Your task to perform on an android device: turn on location history Image 0: 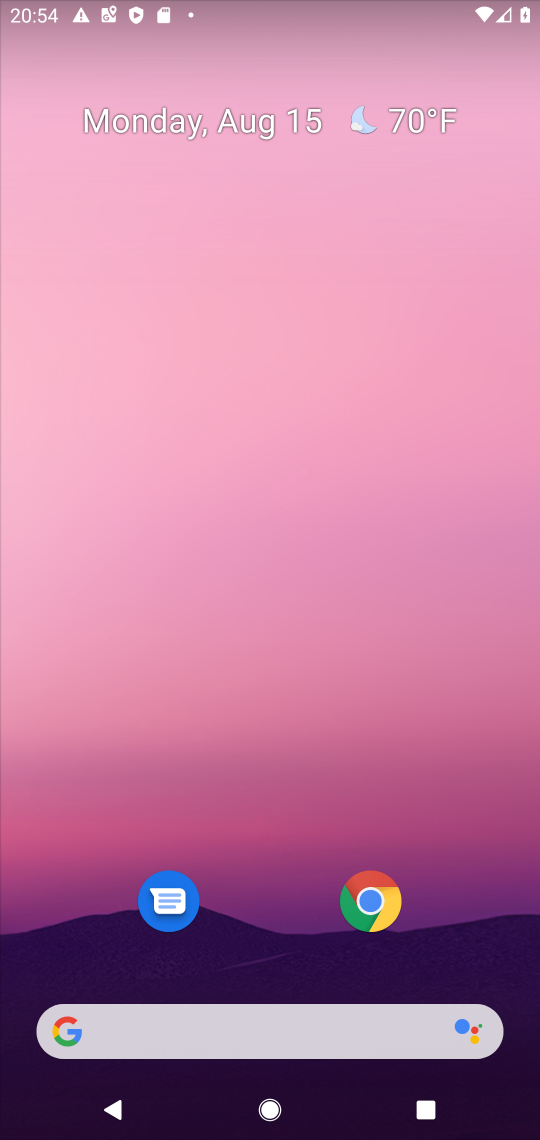
Step 0: drag from (265, 983) to (242, 33)
Your task to perform on an android device: turn on location history Image 1: 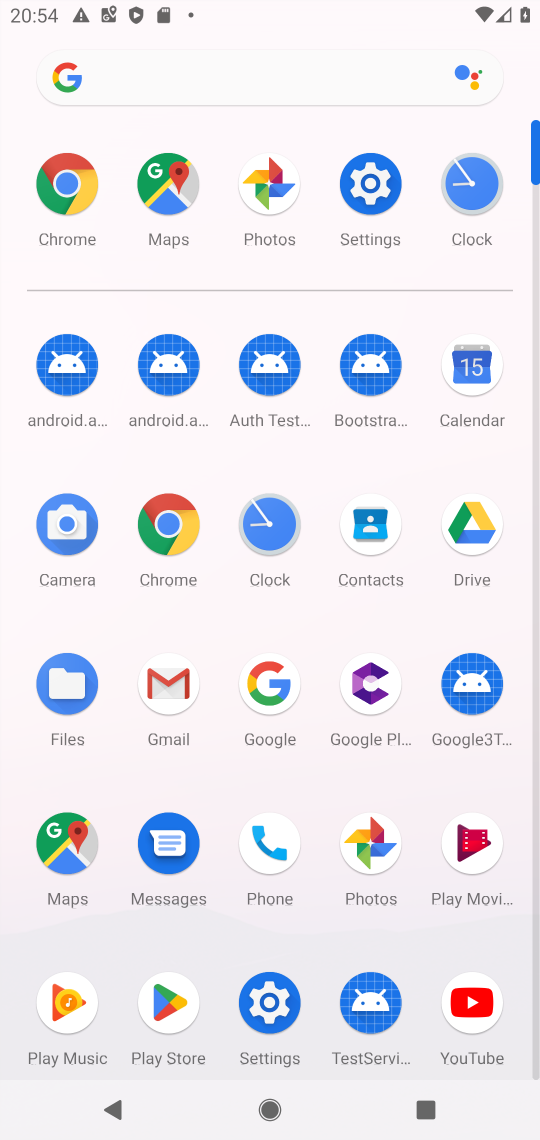
Step 1: click (280, 992)
Your task to perform on an android device: turn on location history Image 2: 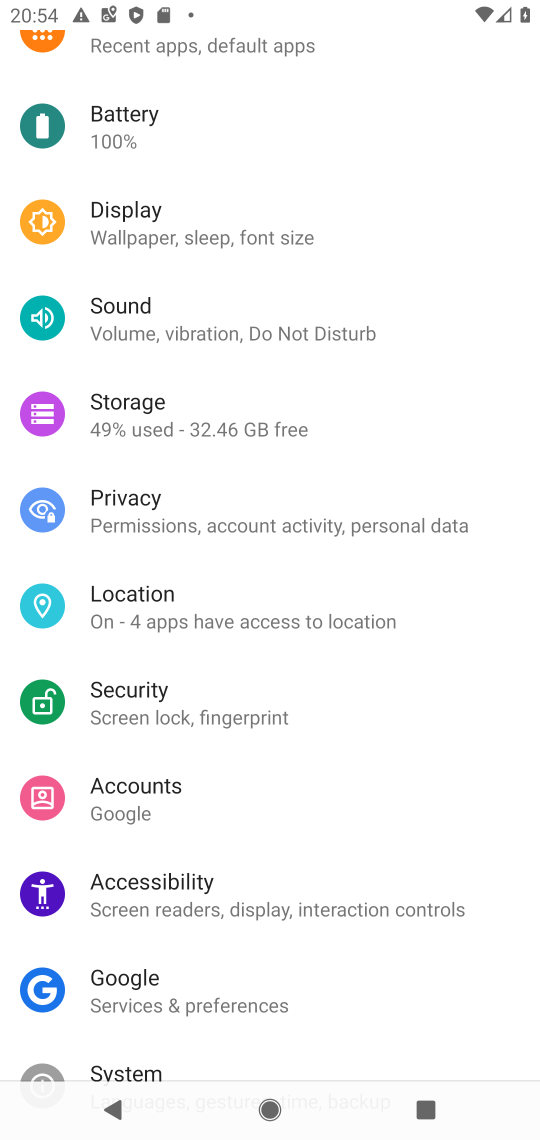
Step 2: click (169, 612)
Your task to perform on an android device: turn on location history Image 3: 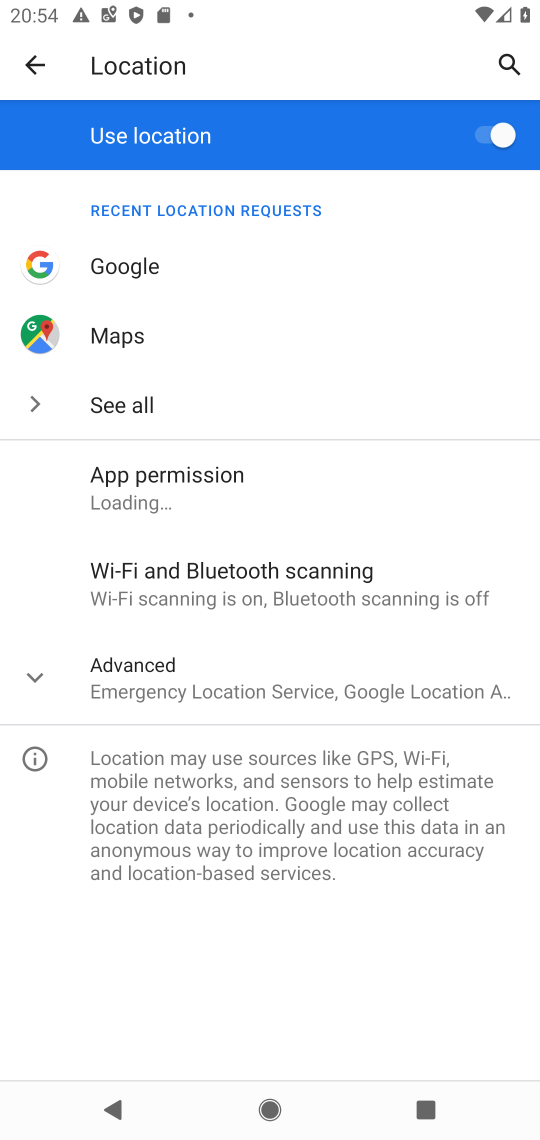
Step 3: click (172, 689)
Your task to perform on an android device: turn on location history Image 4: 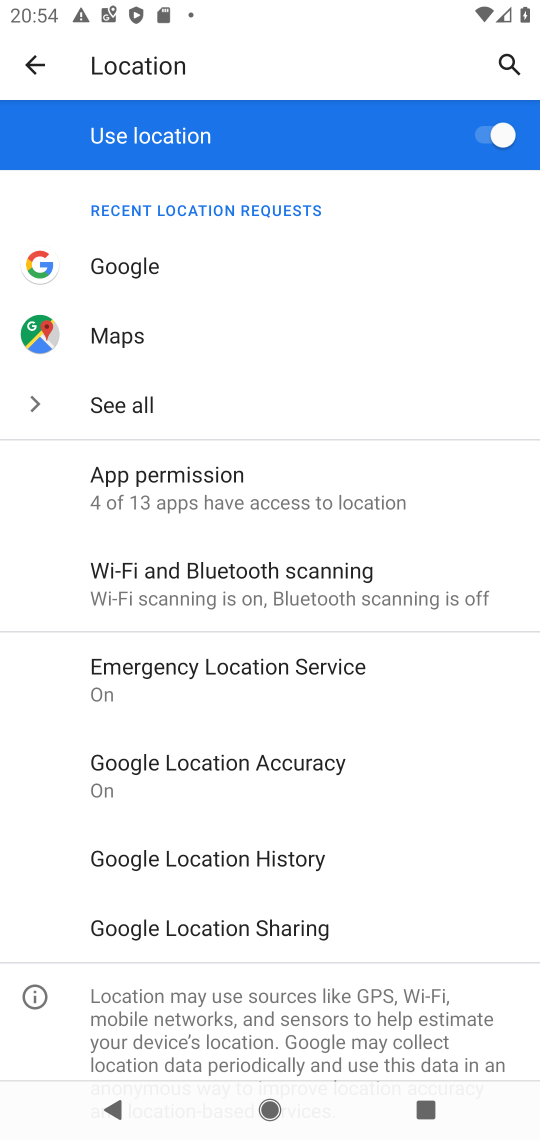
Step 4: click (222, 857)
Your task to perform on an android device: turn on location history Image 5: 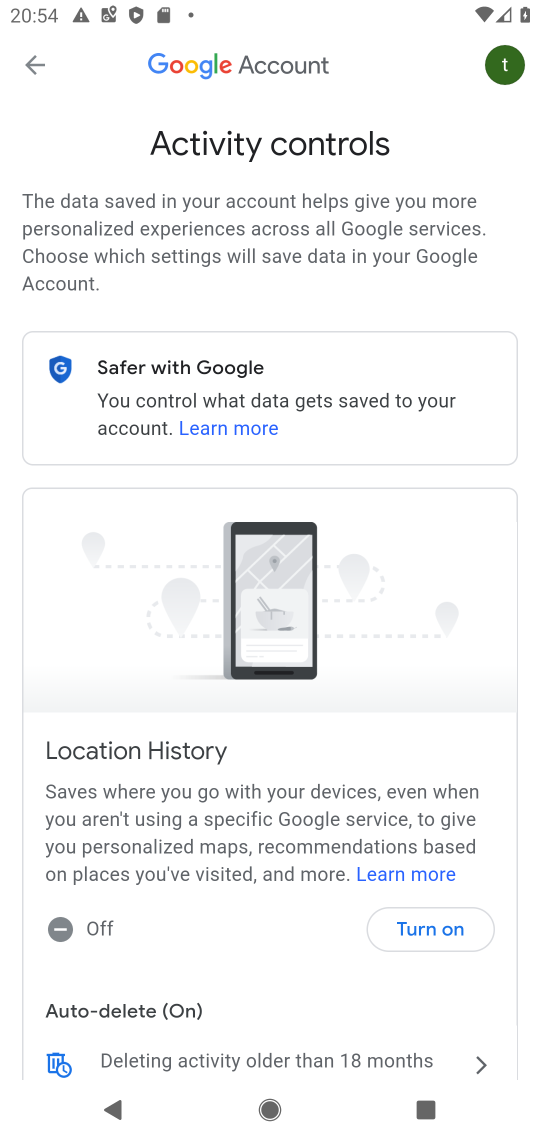
Step 5: click (418, 920)
Your task to perform on an android device: turn on location history Image 6: 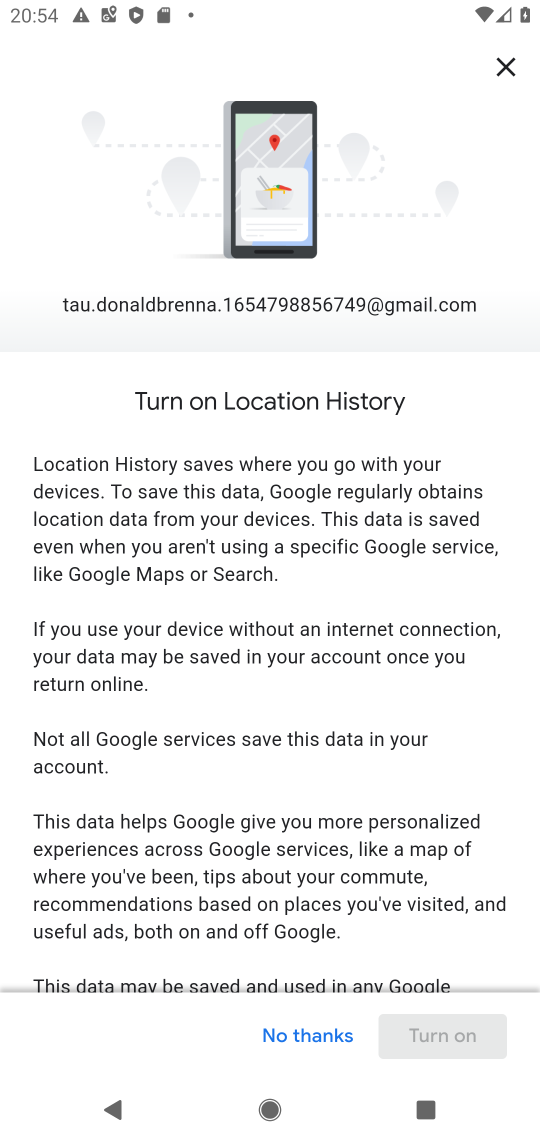
Step 6: drag from (299, 811) to (331, 284)
Your task to perform on an android device: turn on location history Image 7: 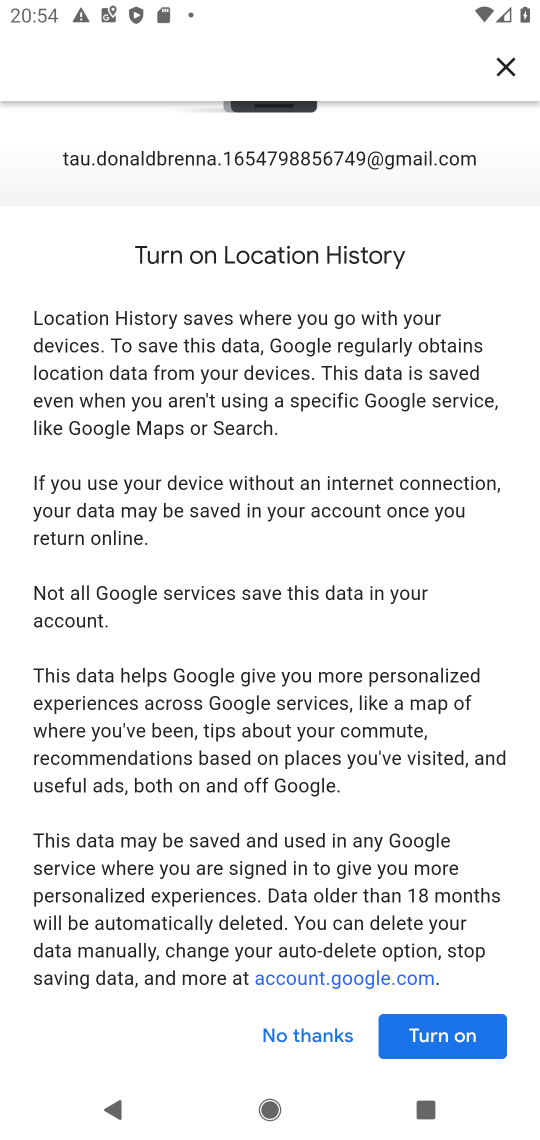
Step 7: click (438, 1032)
Your task to perform on an android device: turn on location history Image 8: 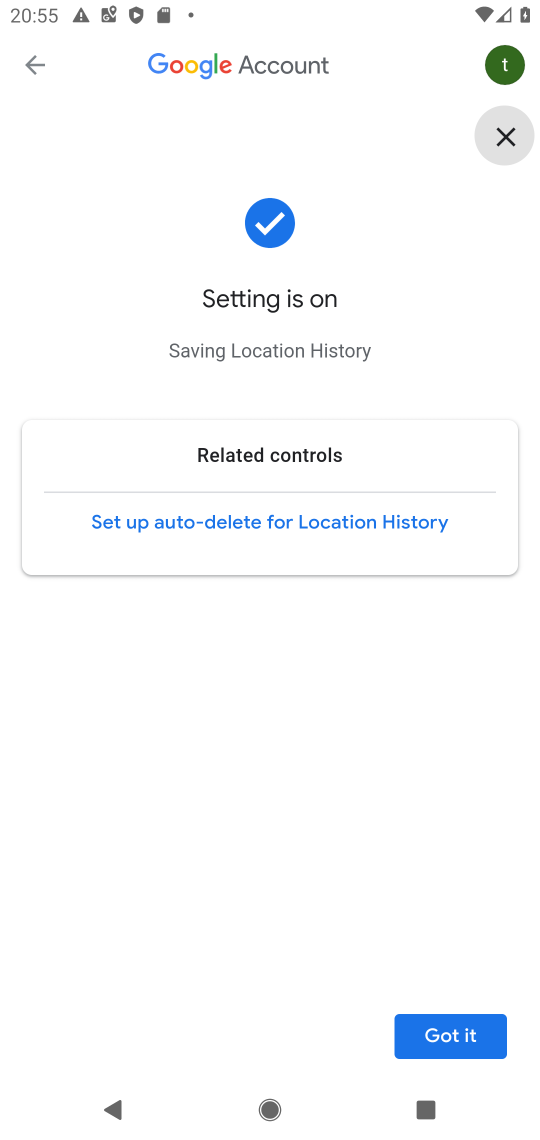
Step 8: click (447, 1020)
Your task to perform on an android device: turn on location history Image 9: 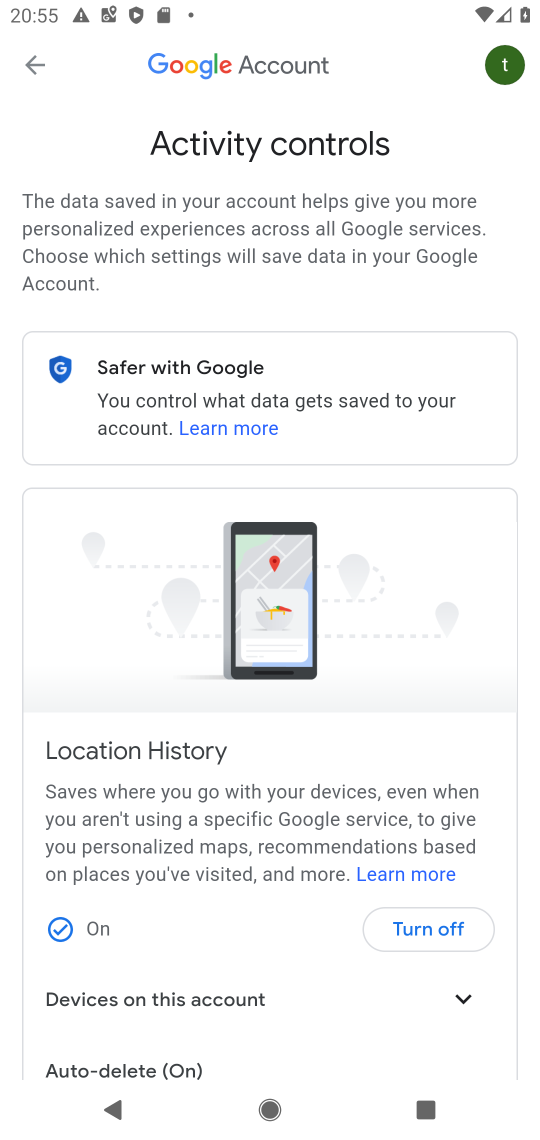
Step 9: task complete